Your task to perform on an android device: Open maps Image 0: 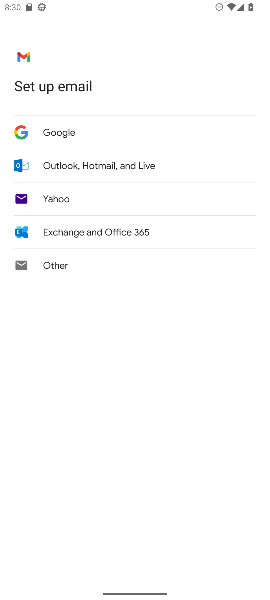
Step 0: press back button
Your task to perform on an android device: Open maps Image 1: 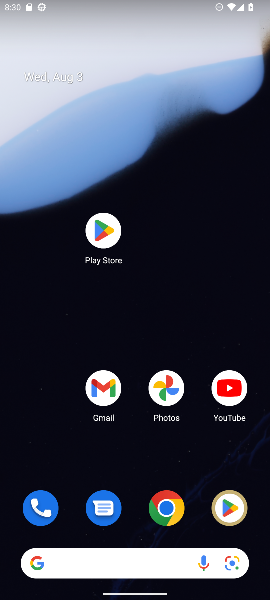
Step 1: drag from (133, 530) to (42, 81)
Your task to perform on an android device: Open maps Image 2: 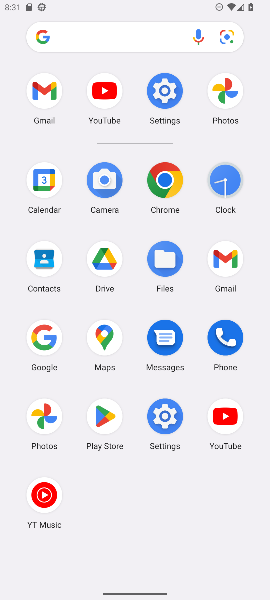
Step 2: click (92, 340)
Your task to perform on an android device: Open maps Image 3: 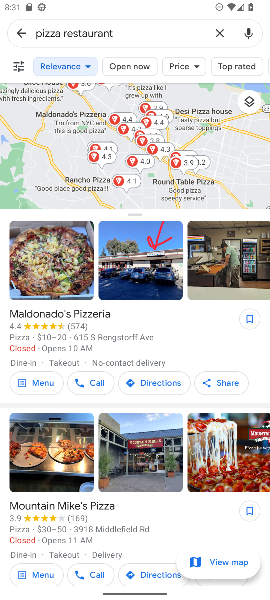
Step 3: click (19, 28)
Your task to perform on an android device: Open maps Image 4: 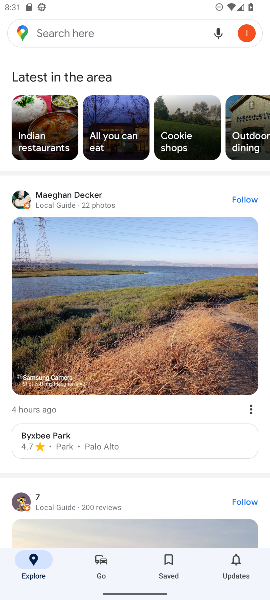
Step 4: task complete